Your task to perform on an android device: Go to Google maps Image 0: 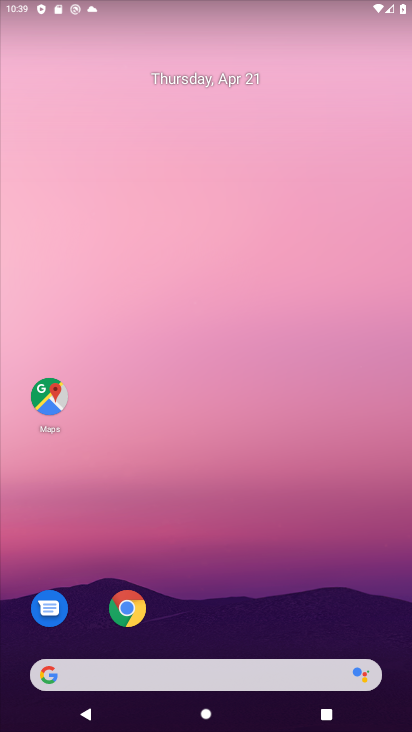
Step 0: click (44, 395)
Your task to perform on an android device: Go to Google maps Image 1: 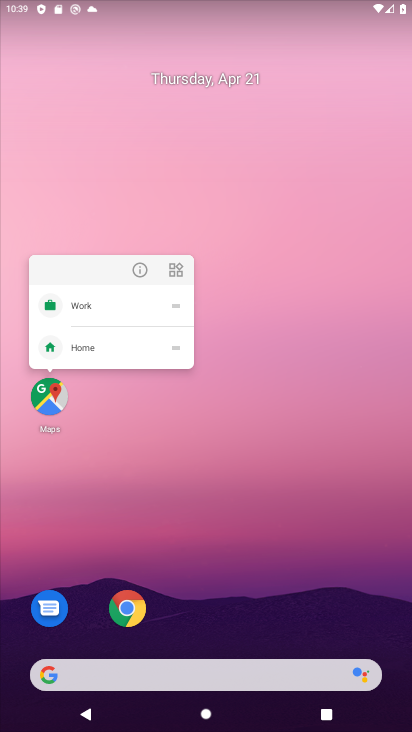
Step 1: click (50, 404)
Your task to perform on an android device: Go to Google maps Image 2: 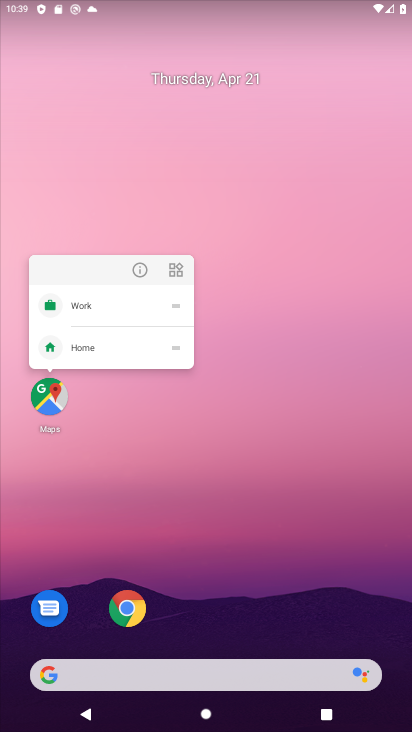
Step 2: click (52, 403)
Your task to perform on an android device: Go to Google maps Image 3: 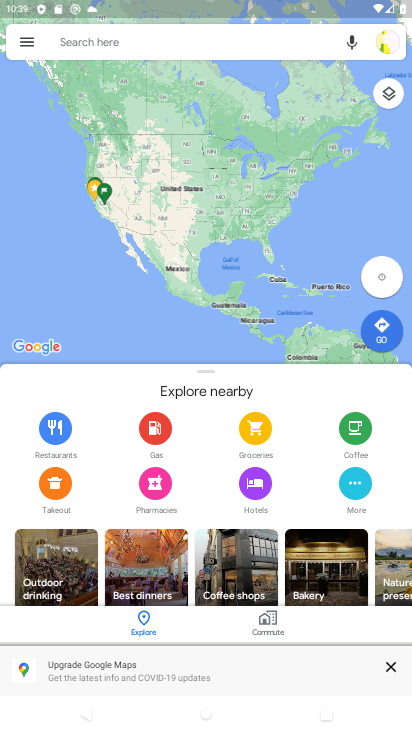
Step 3: task complete